Your task to perform on an android device: What's the latest tech news? Image 0: 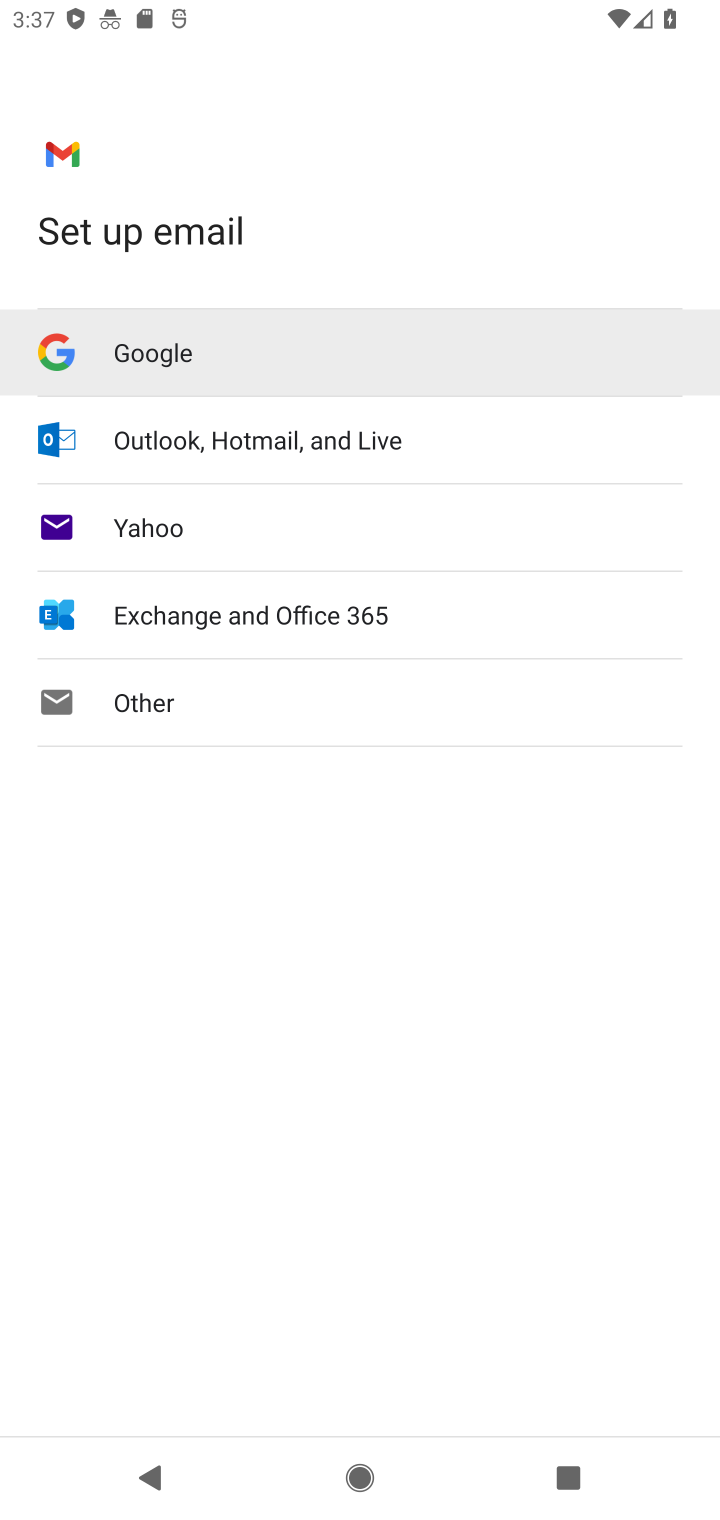
Step 0: press home button
Your task to perform on an android device: What's the latest tech news? Image 1: 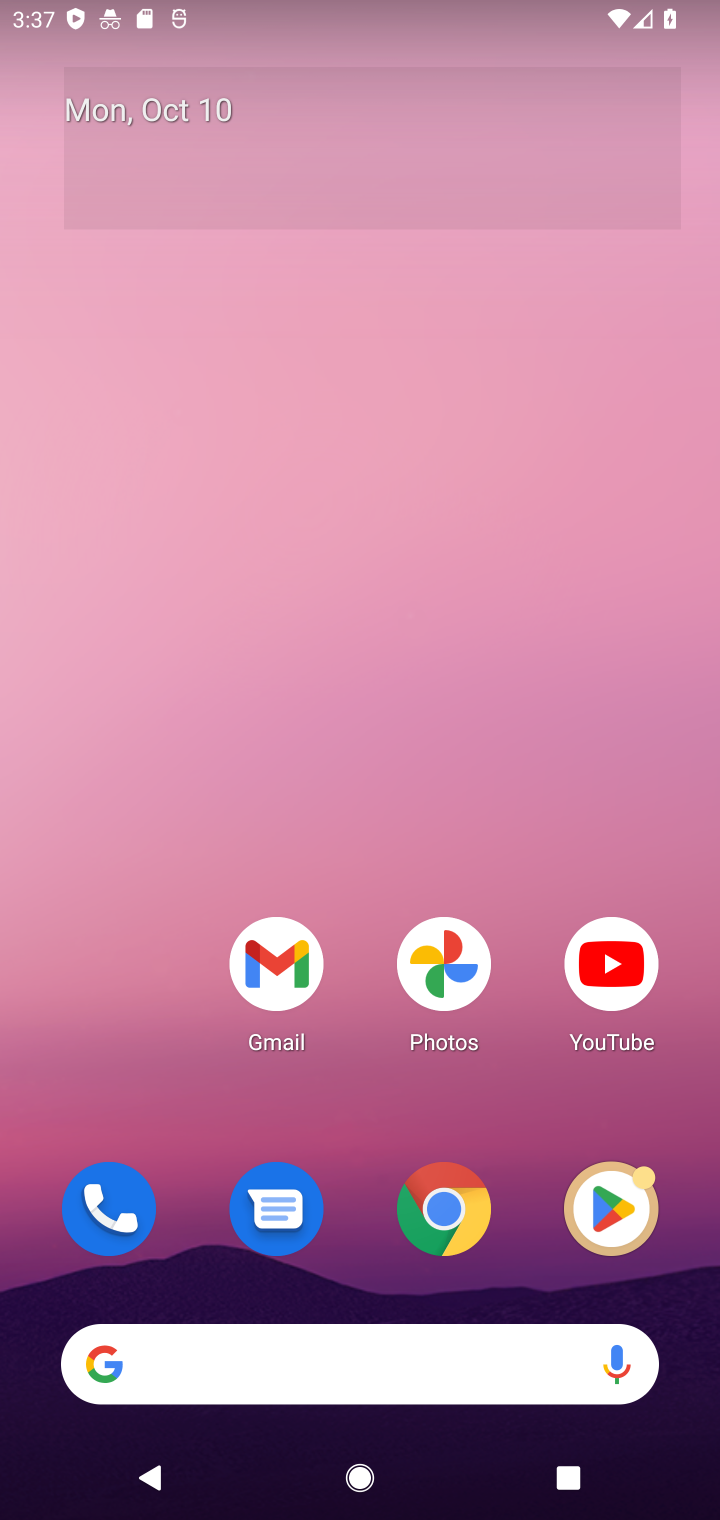
Step 1: click (462, 1228)
Your task to perform on an android device: What's the latest tech news? Image 2: 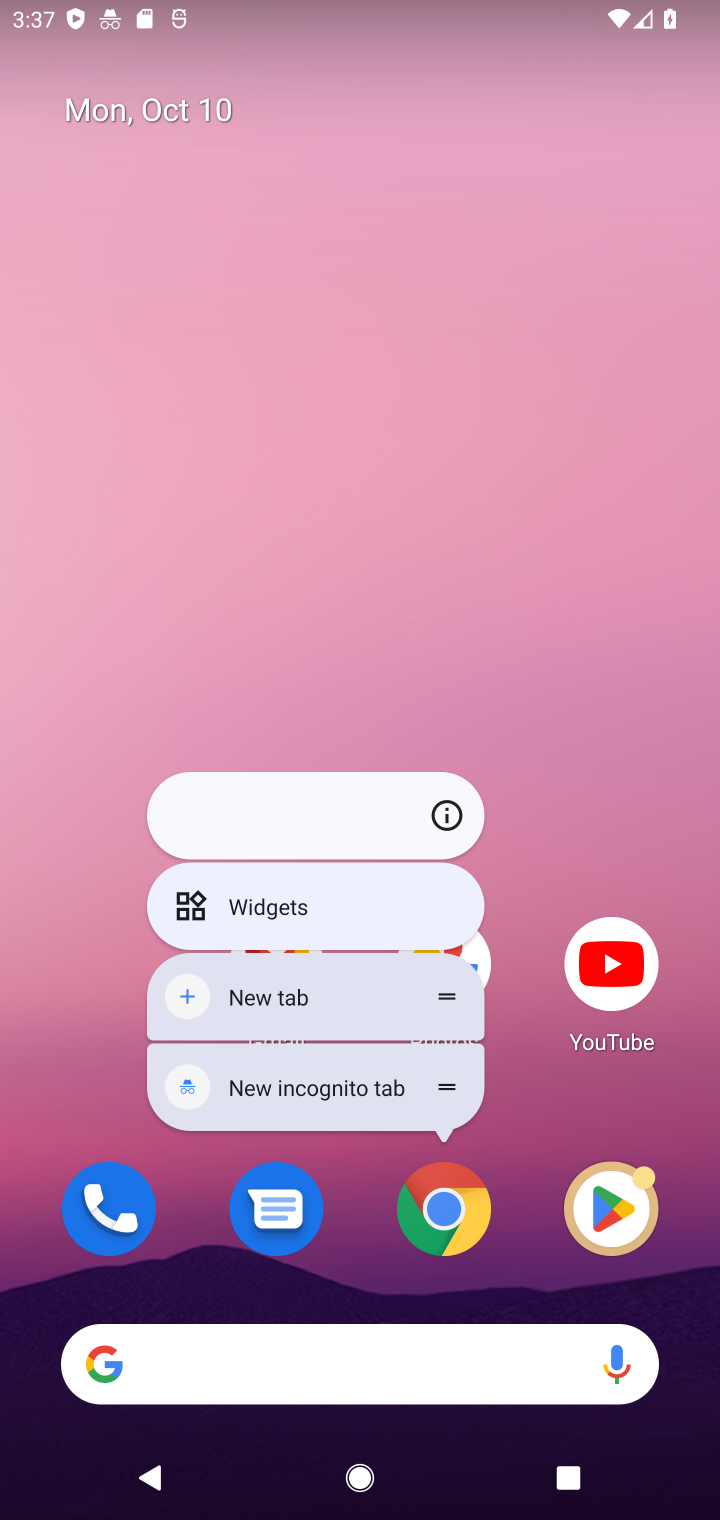
Step 2: click (462, 1228)
Your task to perform on an android device: What's the latest tech news? Image 3: 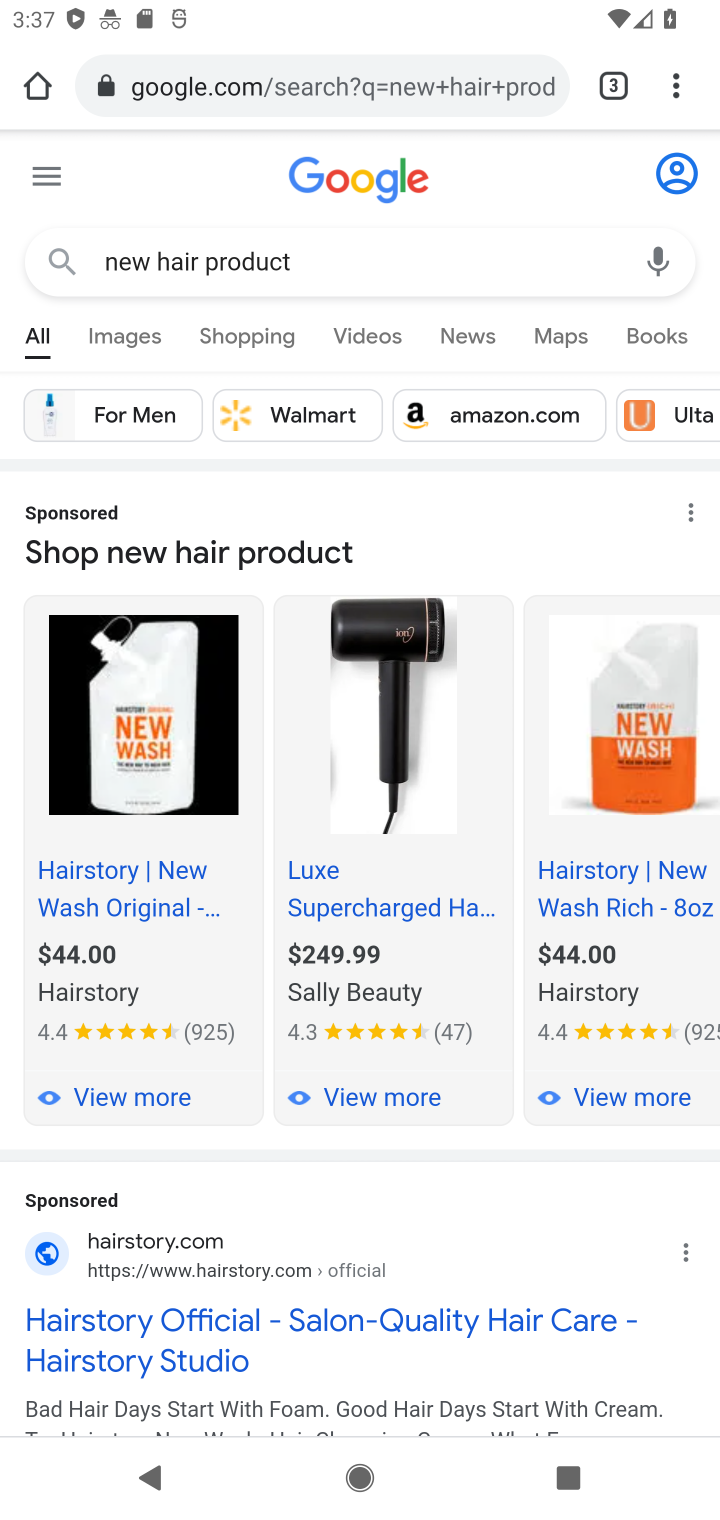
Step 3: click (420, 267)
Your task to perform on an android device: What's the latest tech news? Image 4: 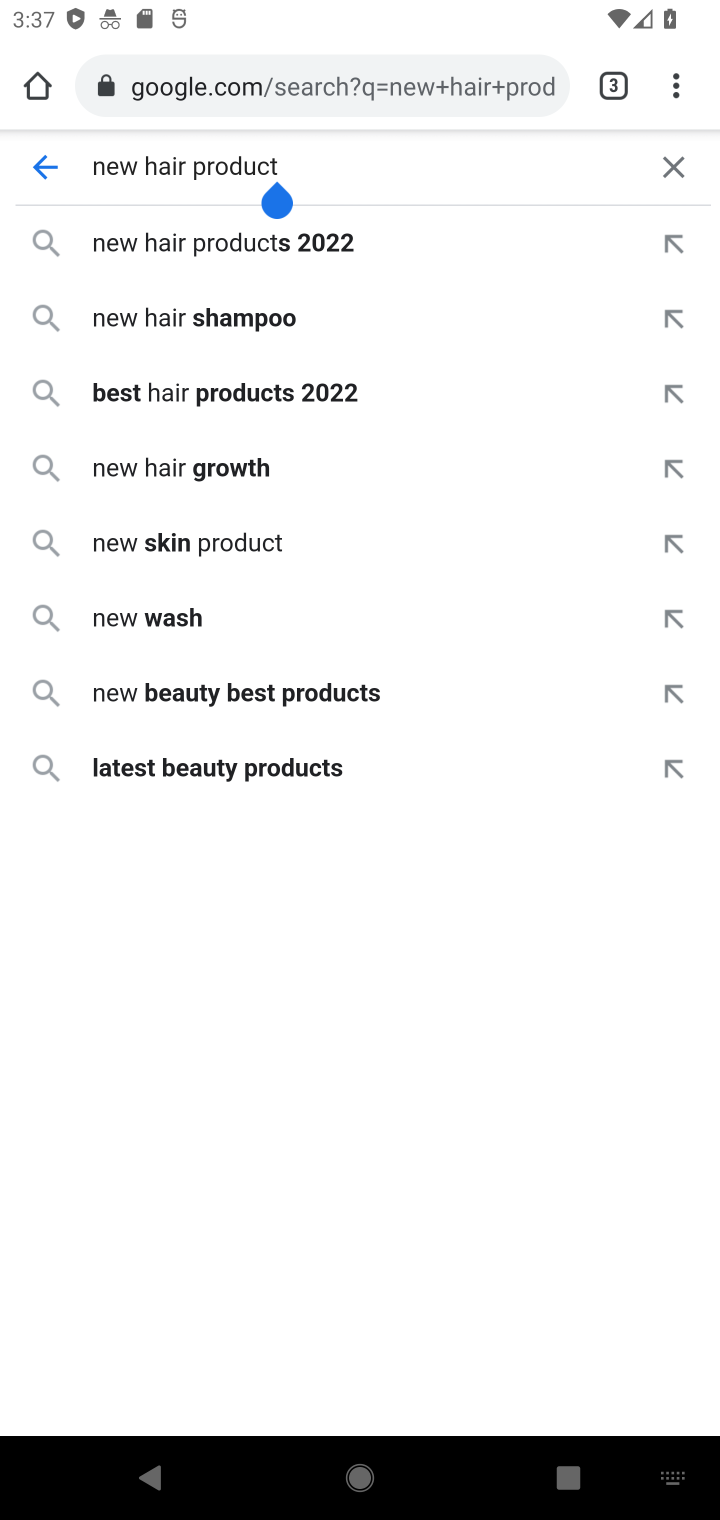
Step 4: click (678, 177)
Your task to perform on an android device: What's the latest tech news? Image 5: 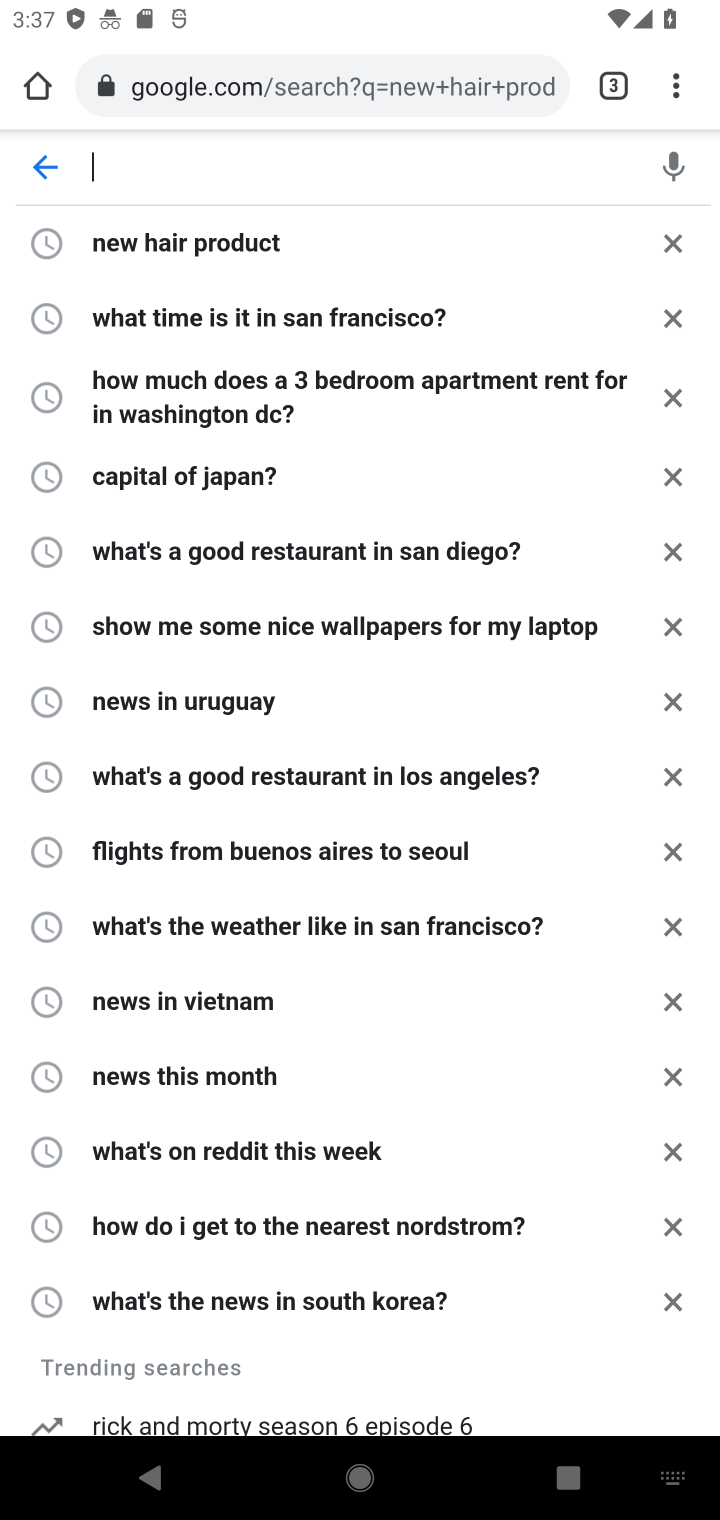
Step 5: type "latest tech news?"
Your task to perform on an android device: What's the latest tech news? Image 6: 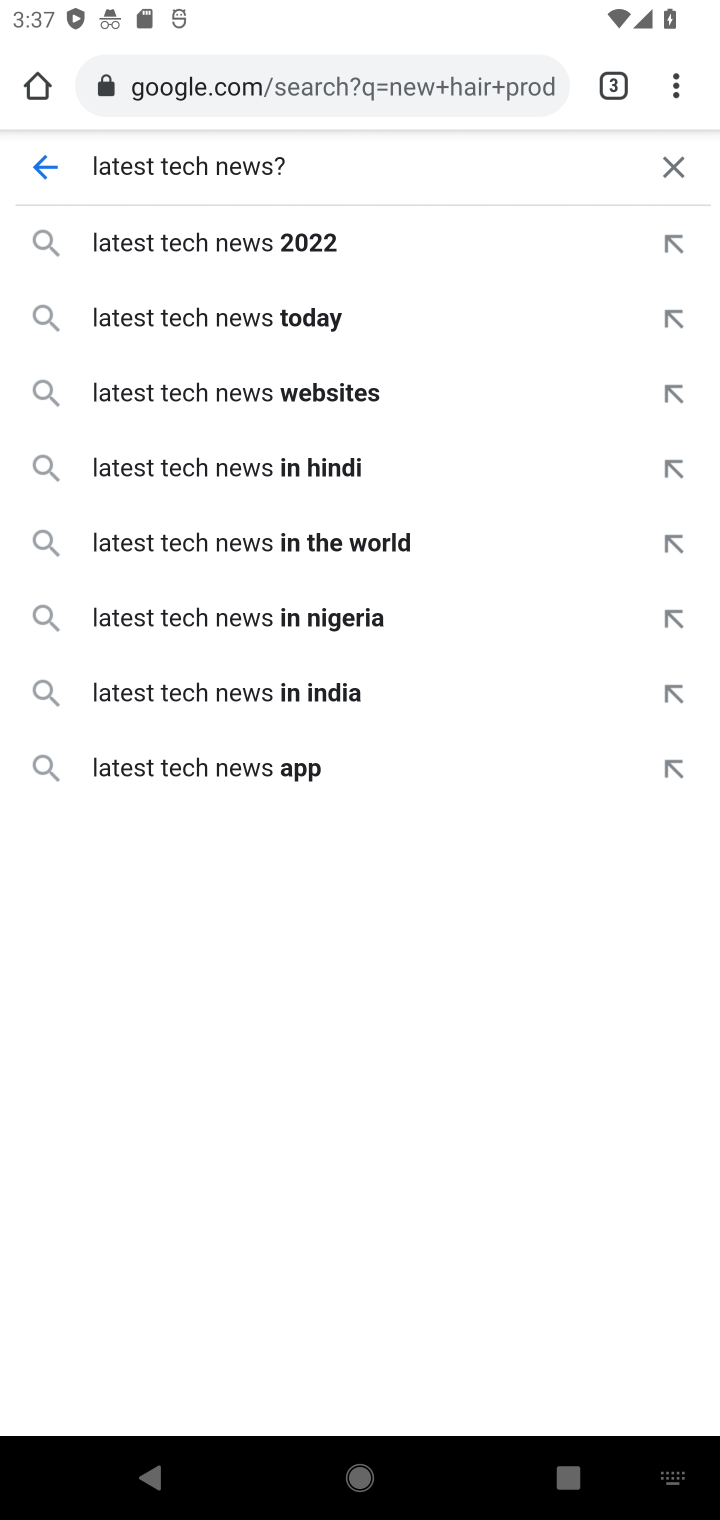
Step 6: press enter
Your task to perform on an android device: What's the latest tech news? Image 7: 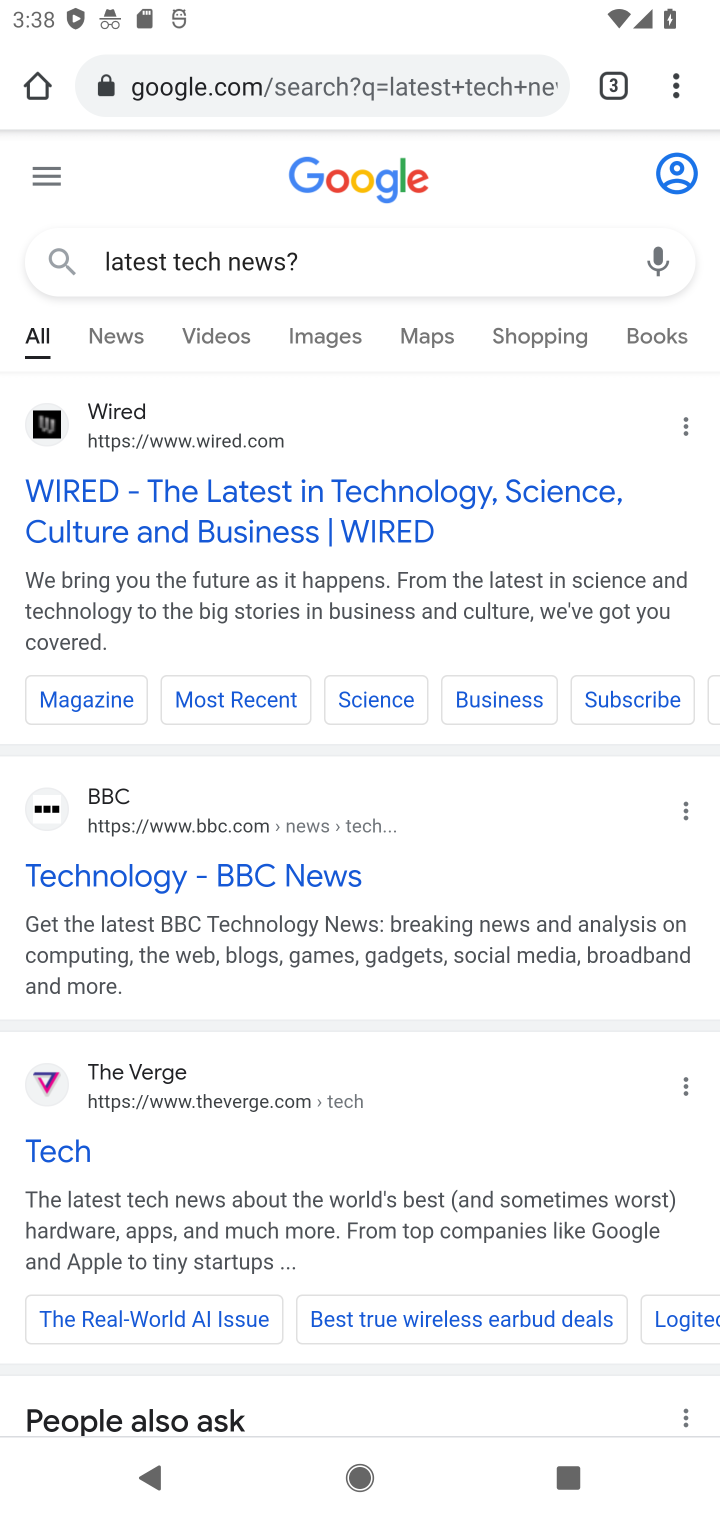
Step 7: click (131, 329)
Your task to perform on an android device: What's the latest tech news? Image 8: 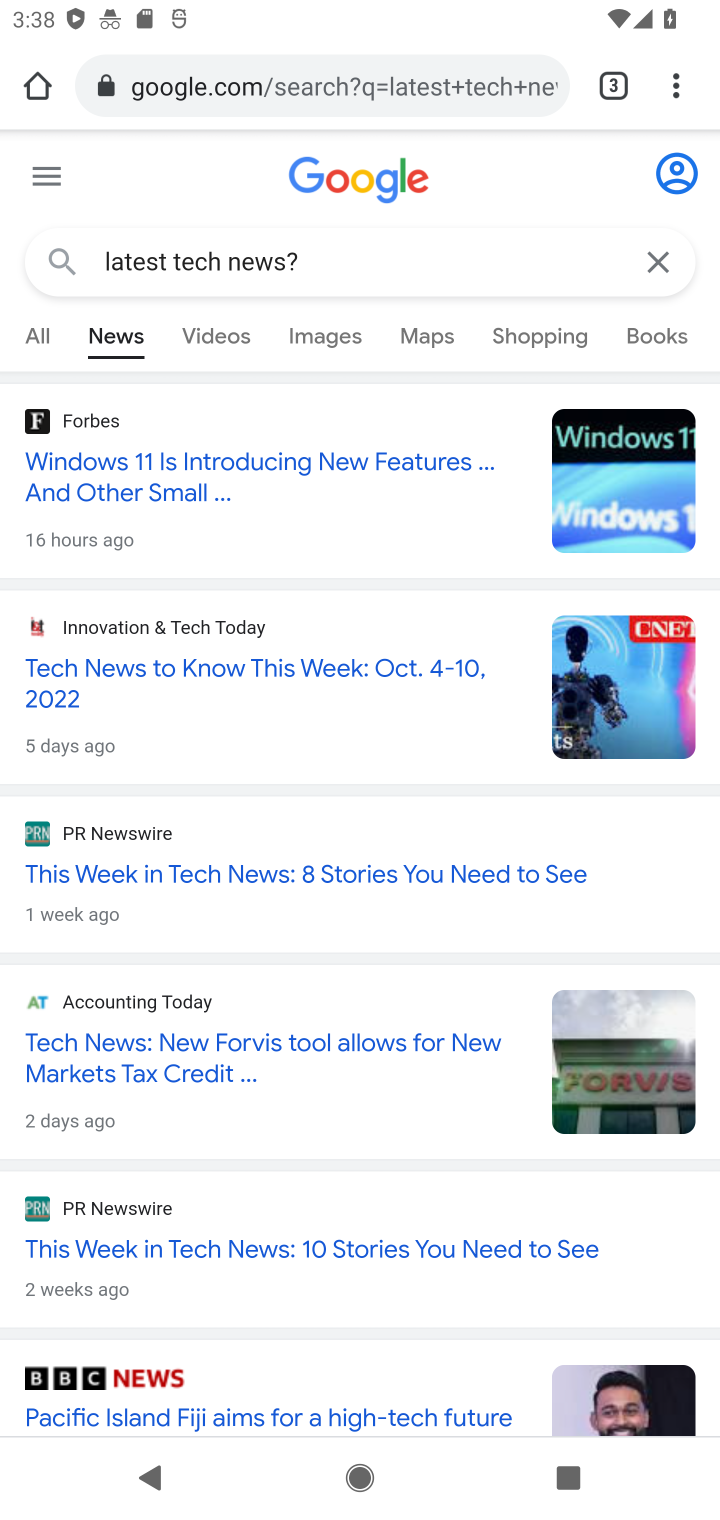
Step 8: task complete